Your task to perform on an android device: turn on the 24-hour format for clock Image 0: 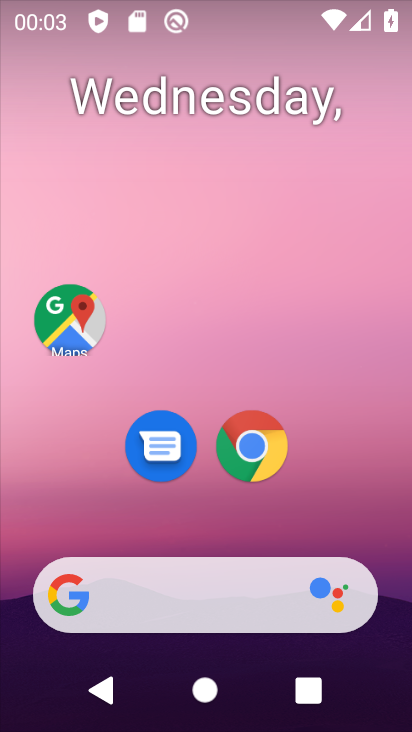
Step 0: click (194, 100)
Your task to perform on an android device: turn on the 24-hour format for clock Image 1: 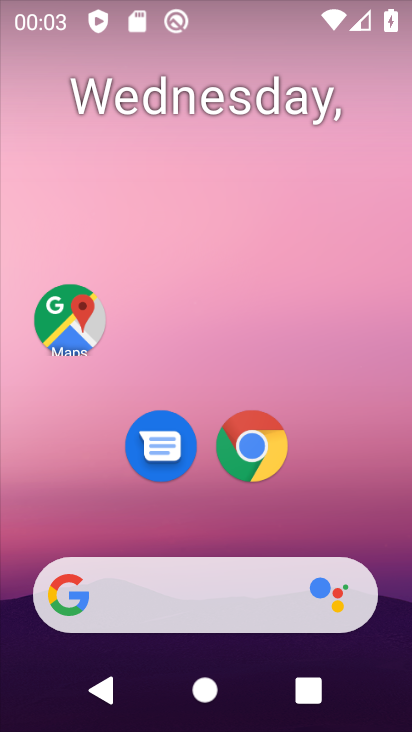
Step 1: drag from (278, 467) to (125, 24)
Your task to perform on an android device: turn on the 24-hour format for clock Image 2: 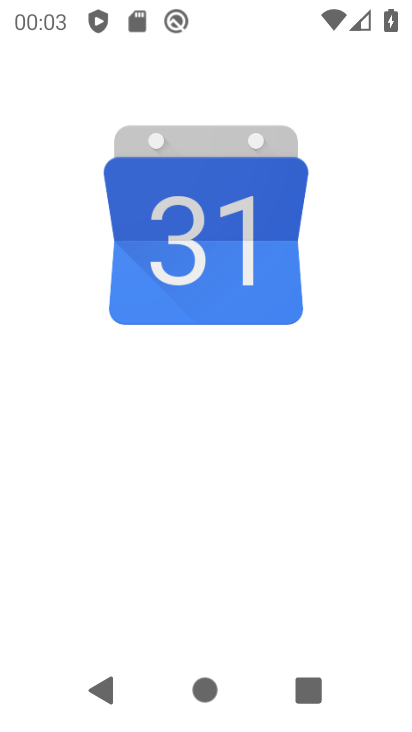
Step 2: drag from (270, 449) to (117, 0)
Your task to perform on an android device: turn on the 24-hour format for clock Image 3: 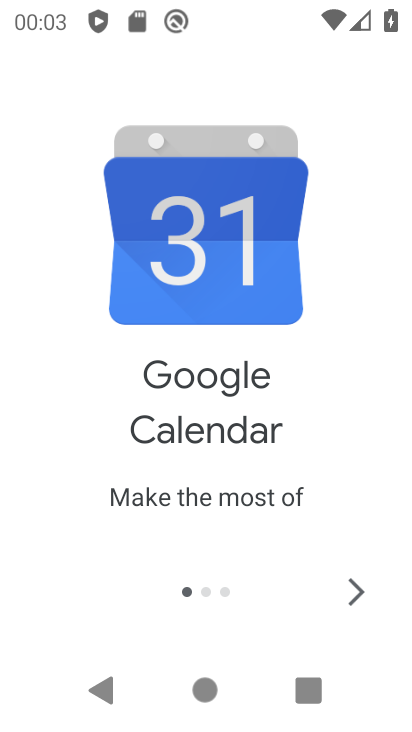
Step 3: drag from (252, 363) to (193, 21)
Your task to perform on an android device: turn on the 24-hour format for clock Image 4: 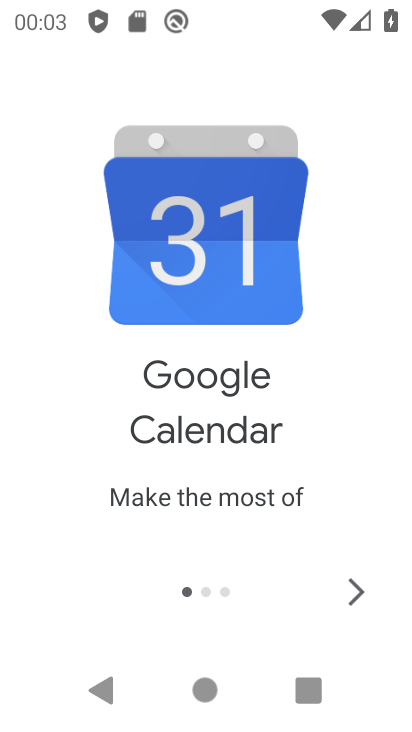
Step 4: click (220, 127)
Your task to perform on an android device: turn on the 24-hour format for clock Image 5: 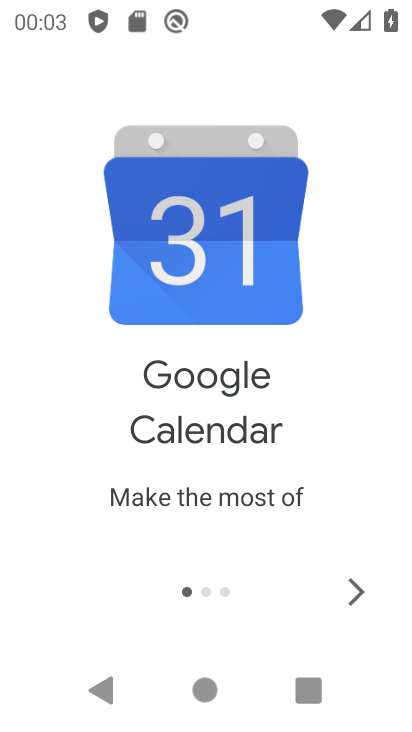
Step 5: click (351, 590)
Your task to perform on an android device: turn on the 24-hour format for clock Image 6: 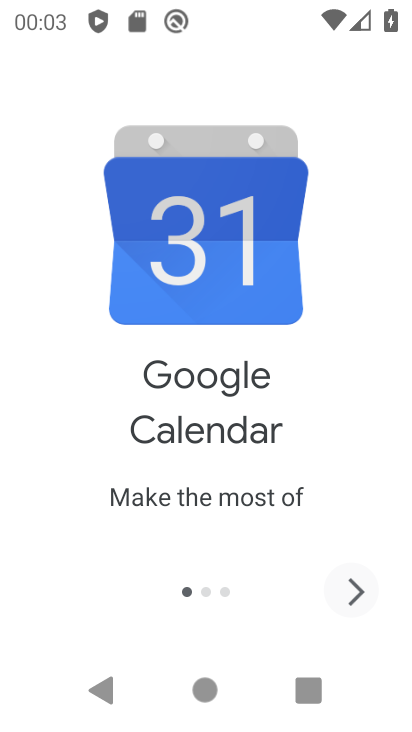
Step 6: click (351, 590)
Your task to perform on an android device: turn on the 24-hour format for clock Image 7: 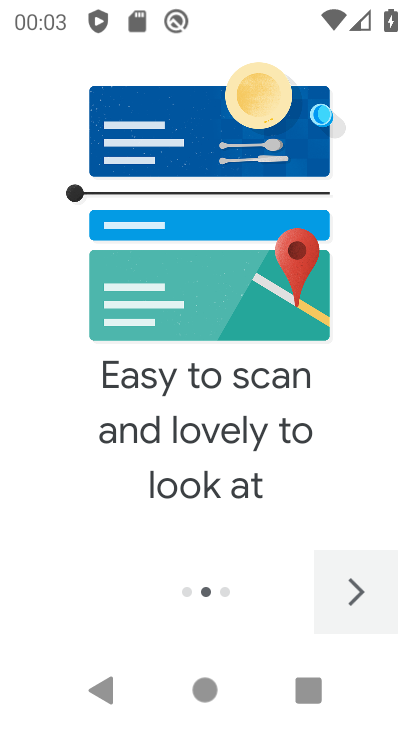
Step 7: click (351, 590)
Your task to perform on an android device: turn on the 24-hour format for clock Image 8: 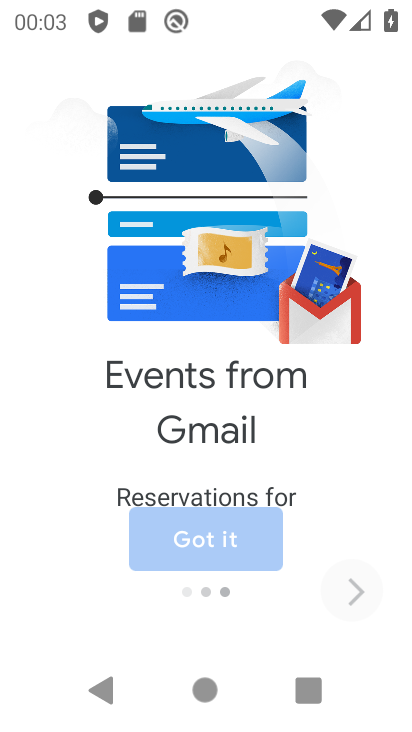
Step 8: click (351, 590)
Your task to perform on an android device: turn on the 24-hour format for clock Image 9: 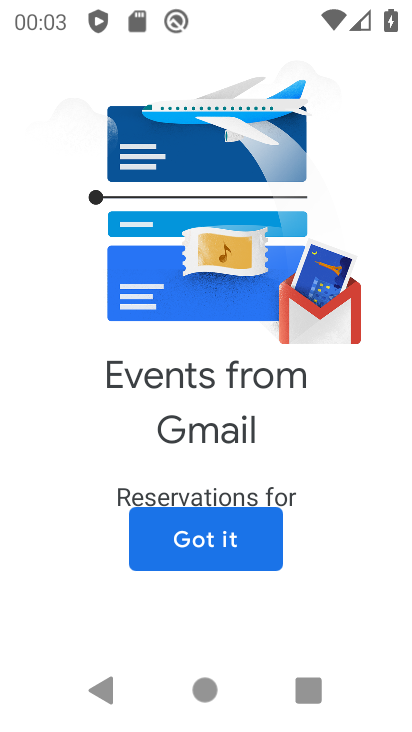
Step 9: click (351, 589)
Your task to perform on an android device: turn on the 24-hour format for clock Image 10: 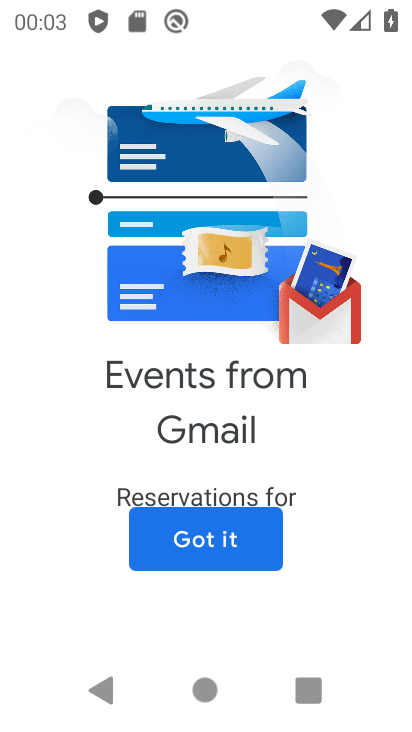
Step 10: click (198, 536)
Your task to perform on an android device: turn on the 24-hour format for clock Image 11: 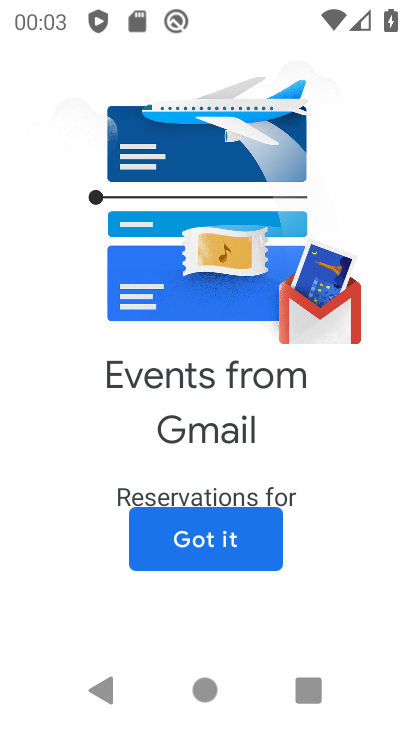
Step 11: click (200, 532)
Your task to perform on an android device: turn on the 24-hour format for clock Image 12: 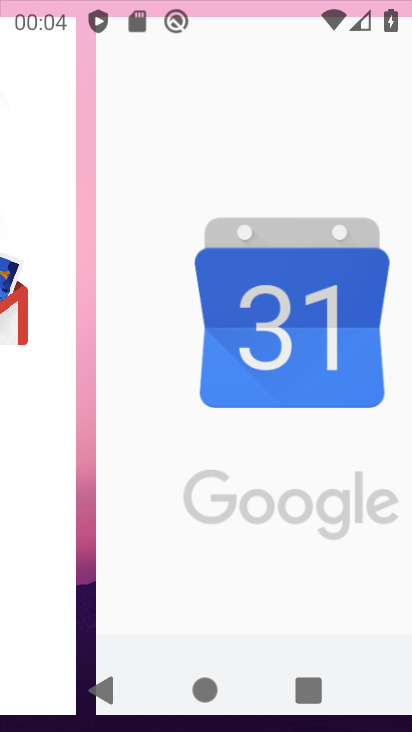
Step 12: click (200, 532)
Your task to perform on an android device: turn on the 24-hour format for clock Image 13: 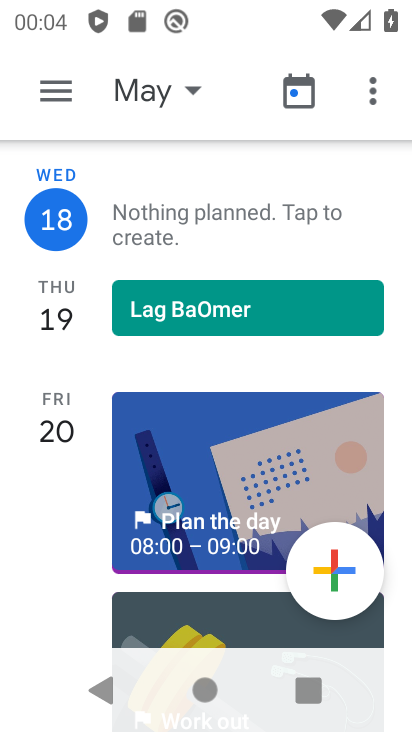
Step 13: press home button
Your task to perform on an android device: turn on the 24-hour format for clock Image 14: 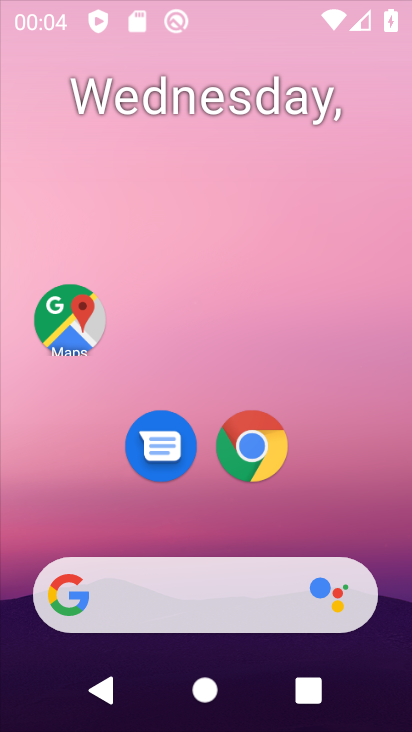
Step 14: press home button
Your task to perform on an android device: turn on the 24-hour format for clock Image 15: 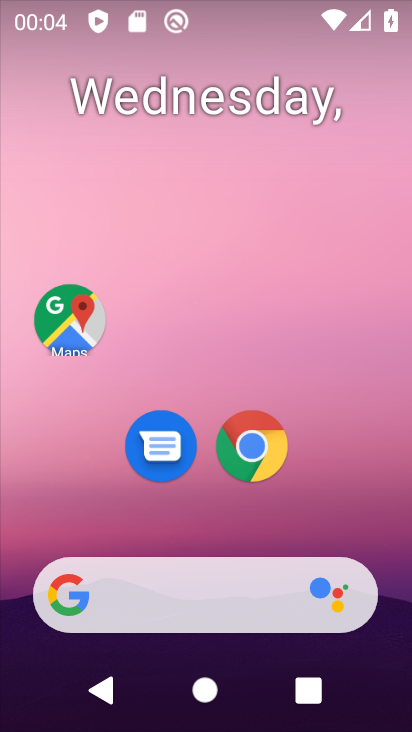
Step 15: drag from (340, 685) to (85, 112)
Your task to perform on an android device: turn on the 24-hour format for clock Image 16: 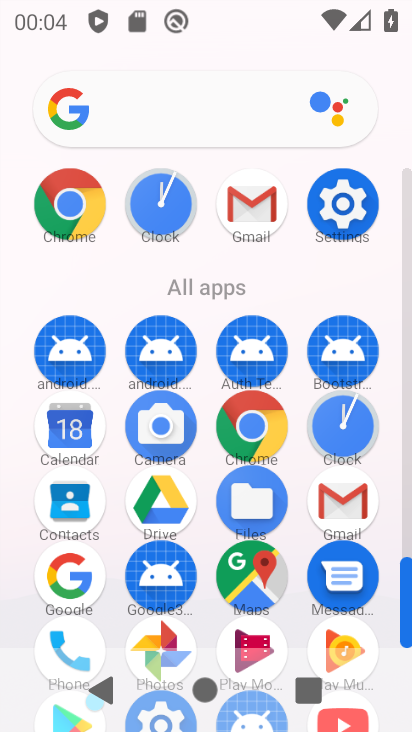
Step 16: click (355, 429)
Your task to perform on an android device: turn on the 24-hour format for clock Image 17: 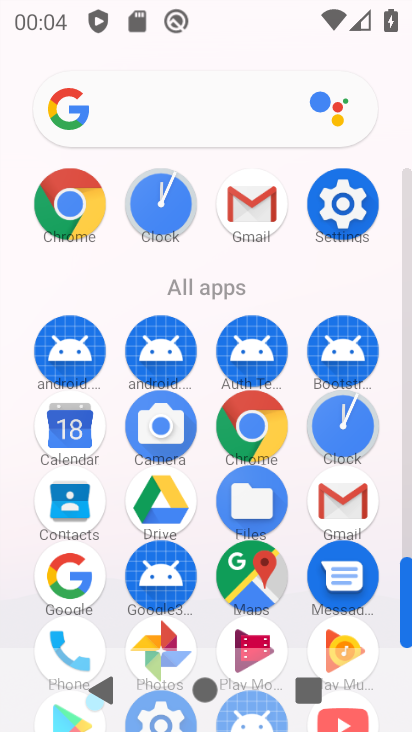
Step 17: click (355, 429)
Your task to perform on an android device: turn on the 24-hour format for clock Image 18: 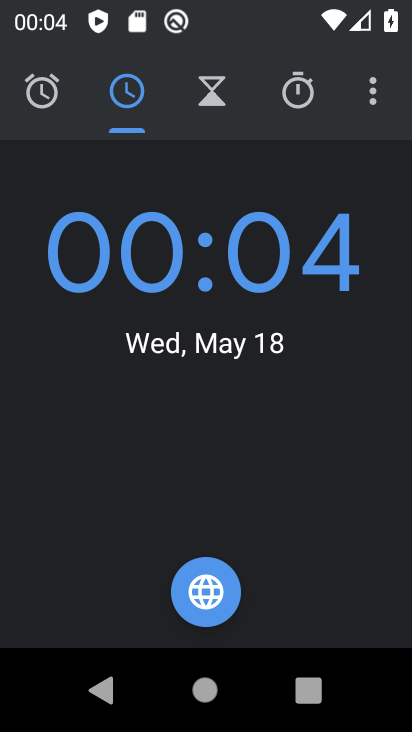
Step 18: click (363, 82)
Your task to perform on an android device: turn on the 24-hour format for clock Image 19: 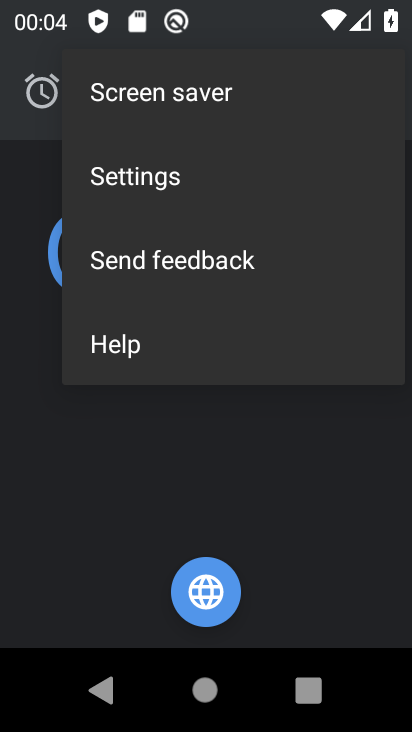
Step 19: click (130, 183)
Your task to perform on an android device: turn on the 24-hour format for clock Image 20: 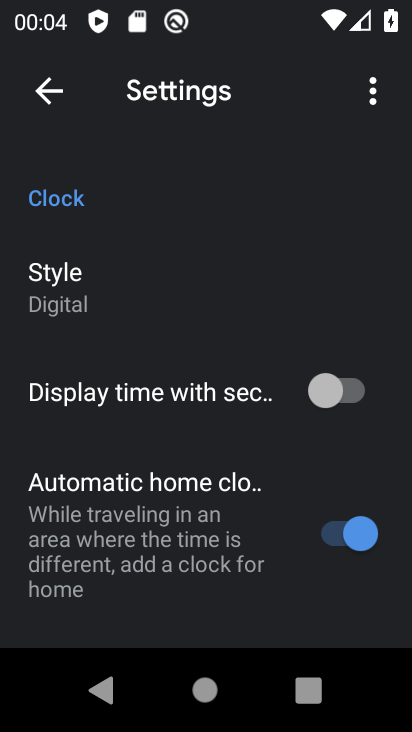
Step 20: drag from (196, 482) to (149, 183)
Your task to perform on an android device: turn on the 24-hour format for clock Image 21: 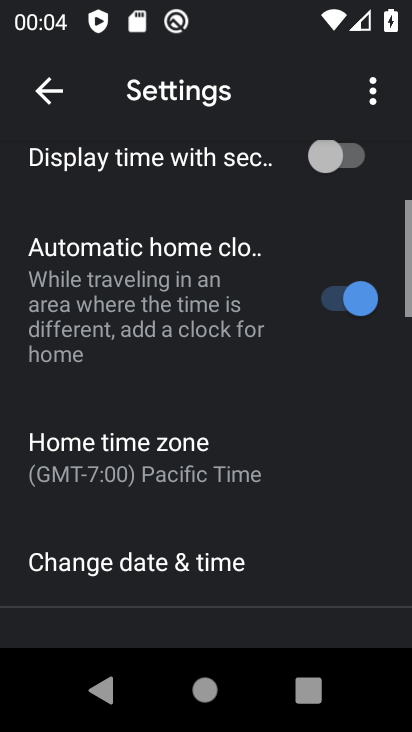
Step 21: drag from (191, 175) to (184, 83)
Your task to perform on an android device: turn on the 24-hour format for clock Image 22: 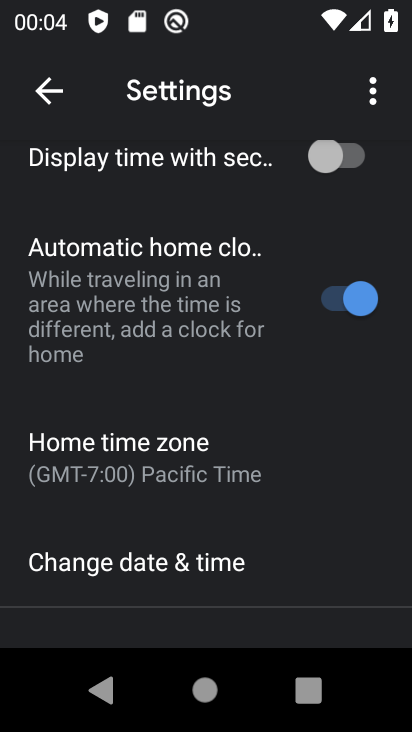
Step 22: click (167, 563)
Your task to perform on an android device: turn on the 24-hour format for clock Image 23: 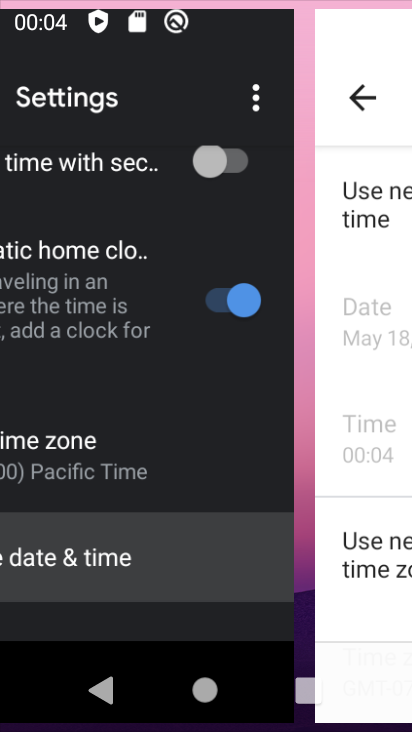
Step 23: click (167, 563)
Your task to perform on an android device: turn on the 24-hour format for clock Image 24: 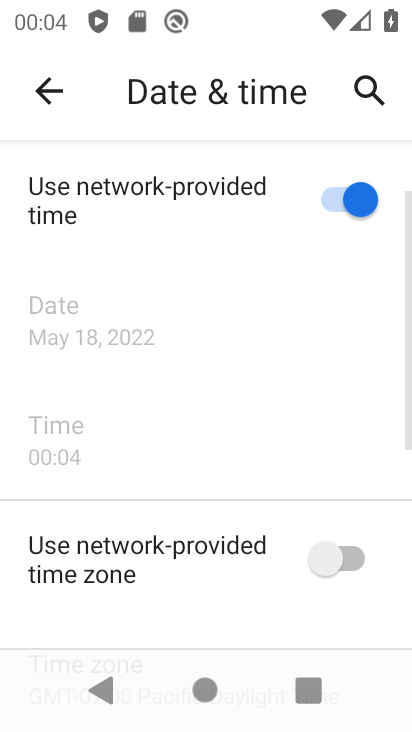
Step 24: task complete